Your task to perform on an android device: Open CNN.com Image 0: 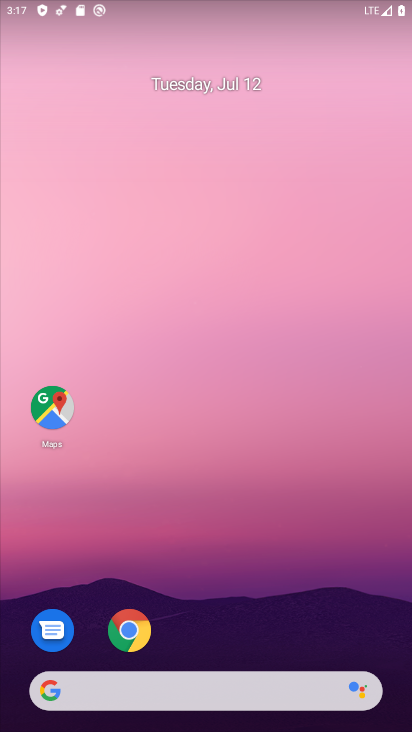
Step 0: drag from (205, 626) to (189, 56)
Your task to perform on an android device: Open CNN.com Image 1: 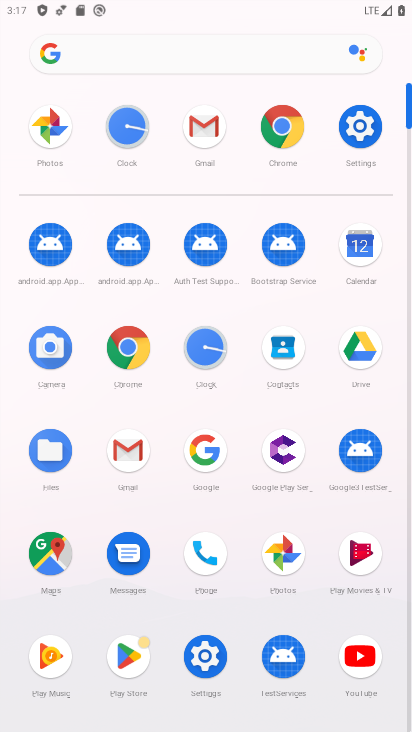
Step 1: click (130, 355)
Your task to perform on an android device: Open CNN.com Image 2: 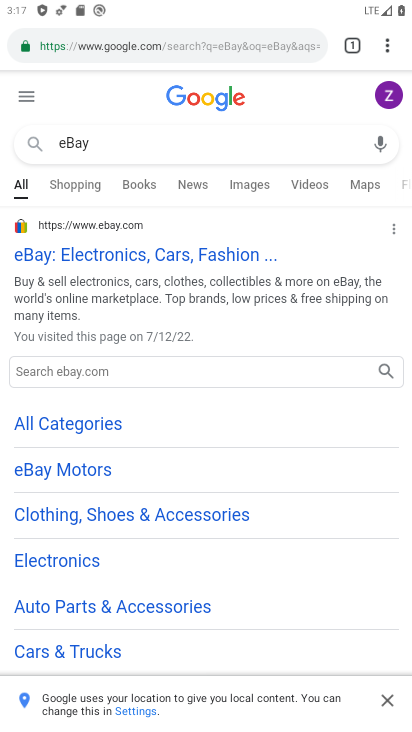
Step 2: click (193, 37)
Your task to perform on an android device: Open CNN.com Image 3: 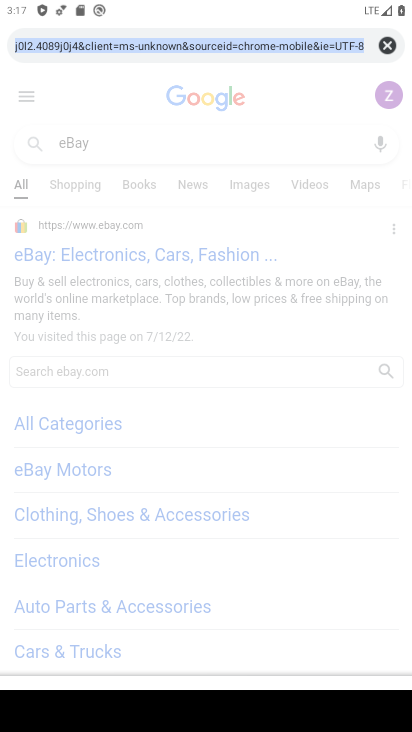
Step 3: type "CNN.com"
Your task to perform on an android device: Open CNN.com Image 4: 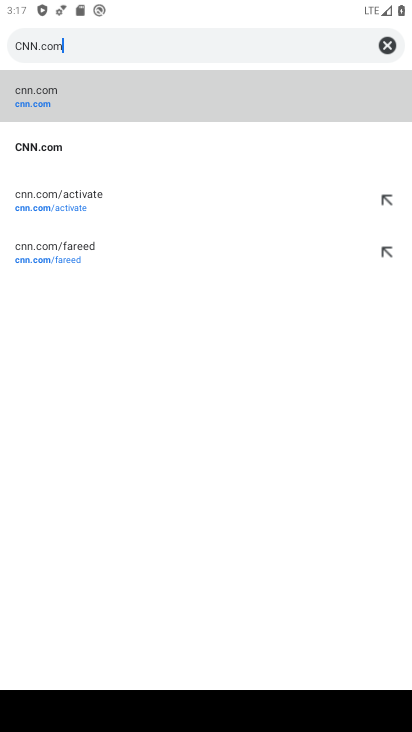
Step 4: click (124, 90)
Your task to perform on an android device: Open CNN.com Image 5: 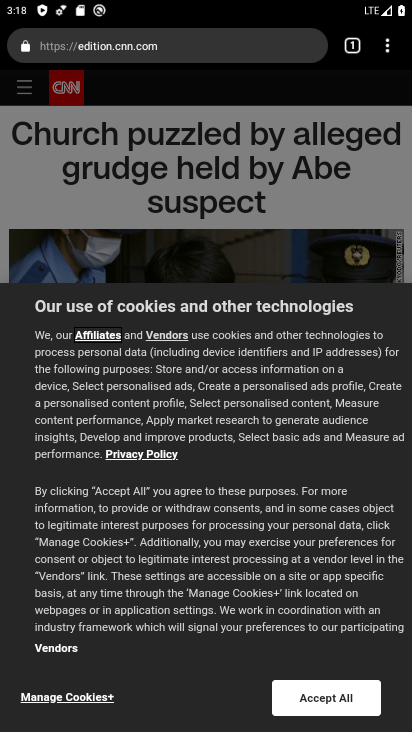
Step 5: task complete